Your task to perform on an android device: Open Maps and search for coffee Image 0: 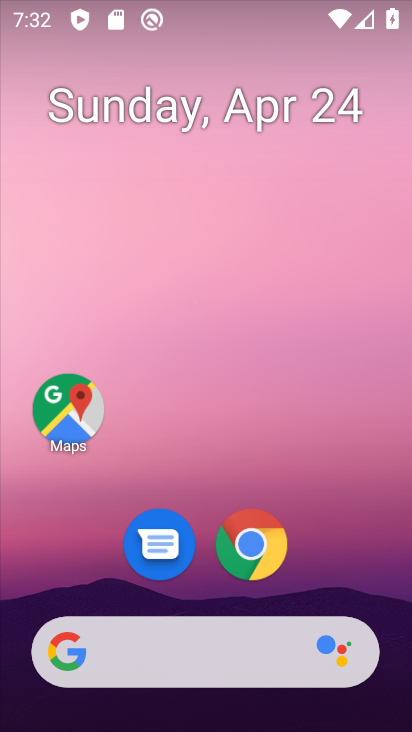
Step 0: press home button
Your task to perform on an android device: Open Maps and search for coffee Image 1: 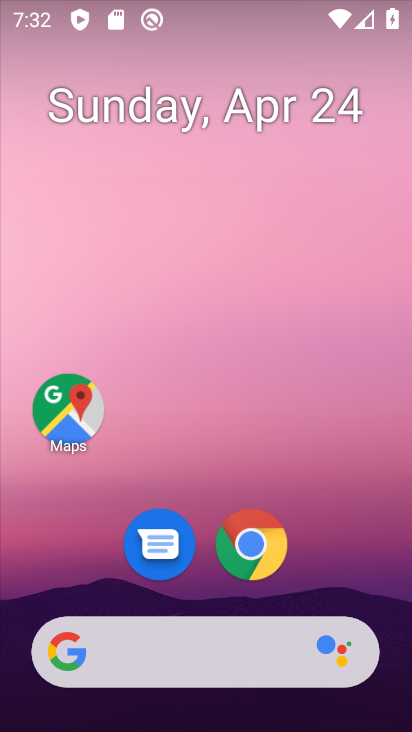
Step 1: drag from (196, 652) to (343, 87)
Your task to perform on an android device: Open Maps and search for coffee Image 2: 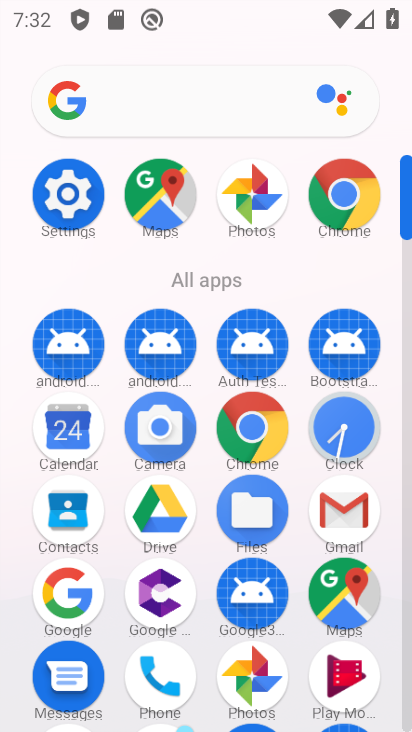
Step 2: click (161, 211)
Your task to perform on an android device: Open Maps and search for coffee Image 3: 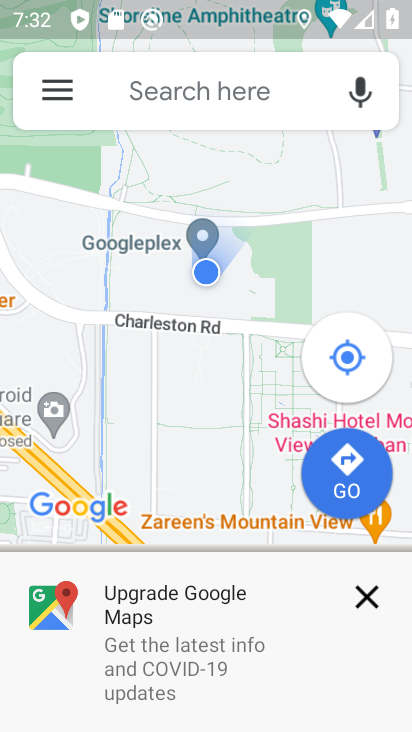
Step 3: click (161, 91)
Your task to perform on an android device: Open Maps and search for coffee Image 4: 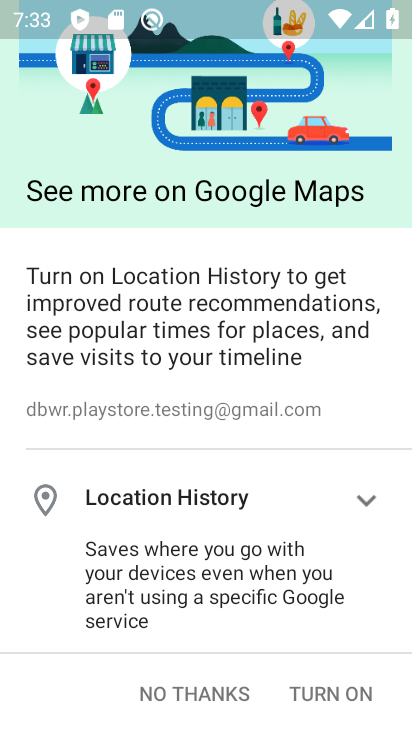
Step 4: click (195, 689)
Your task to perform on an android device: Open Maps and search for coffee Image 5: 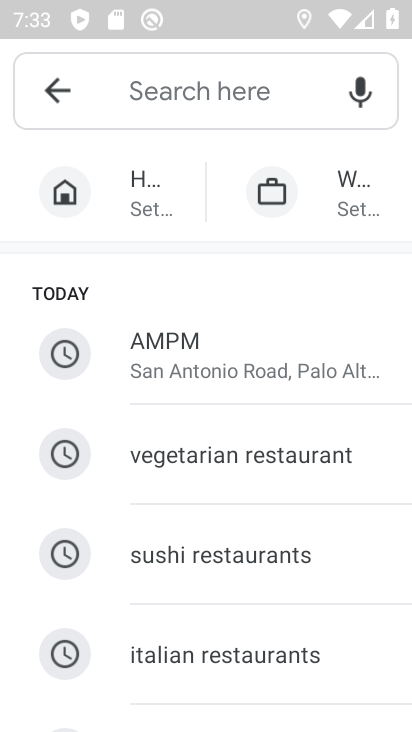
Step 5: drag from (230, 408) to (337, 175)
Your task to perform on an android device: Open Maps and search for coffee Image 6: 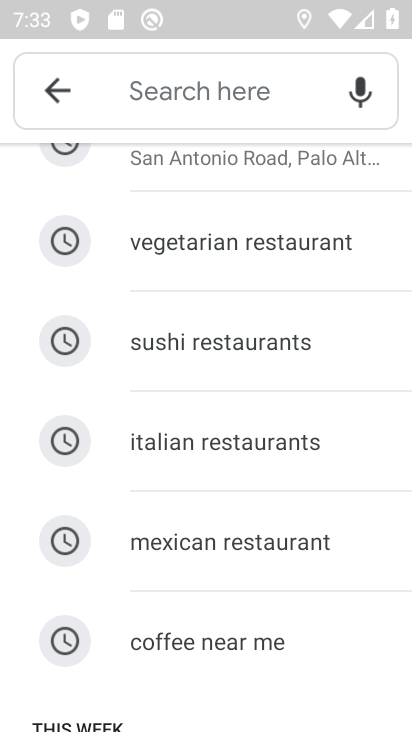
Step 6: click (179, 649)
Your task to perform on an android device: Open Maps and search for coffee Image 7: 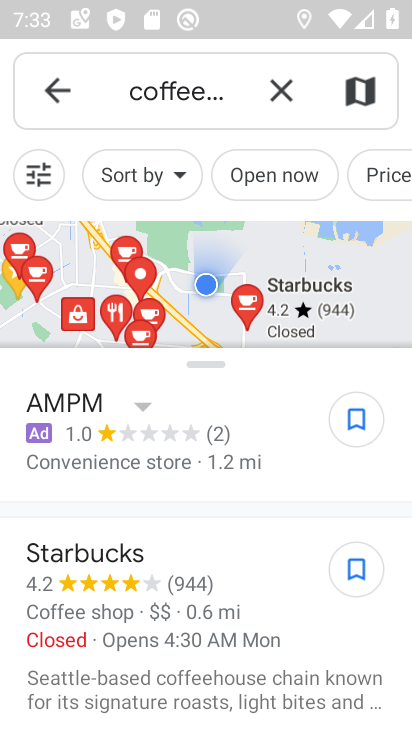
Step 7: task complete